Your task to perform on an android device: turn off airplane mode Image 0: 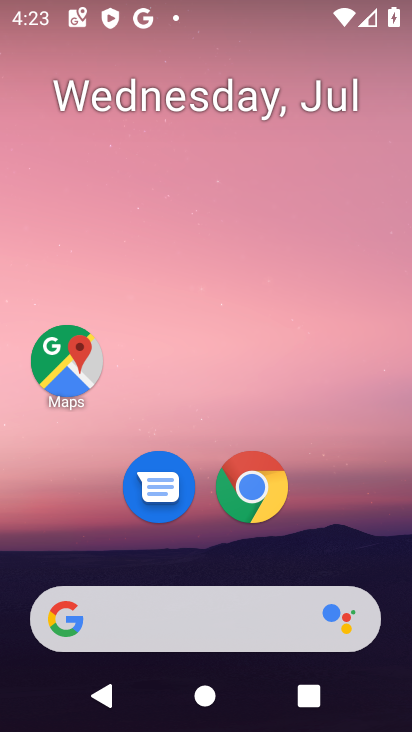
Step 0: drag from (297, 23) to (227, 668)
Your task to perform on an android device: turn off airplane mode Image 1: 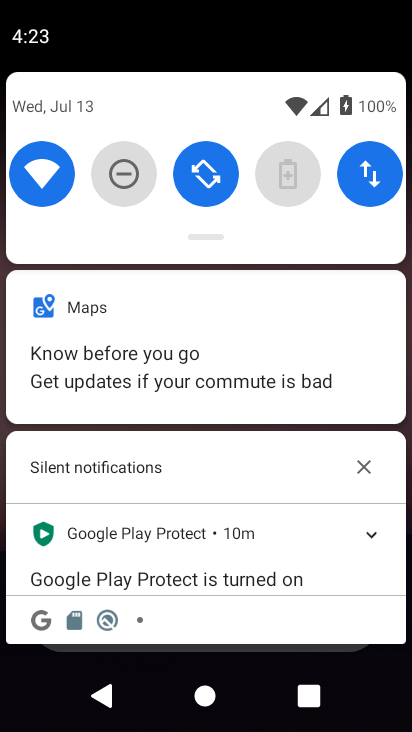
Step 1: task complete